Your task to perform on an android device: Open the stopwatch Image 0: 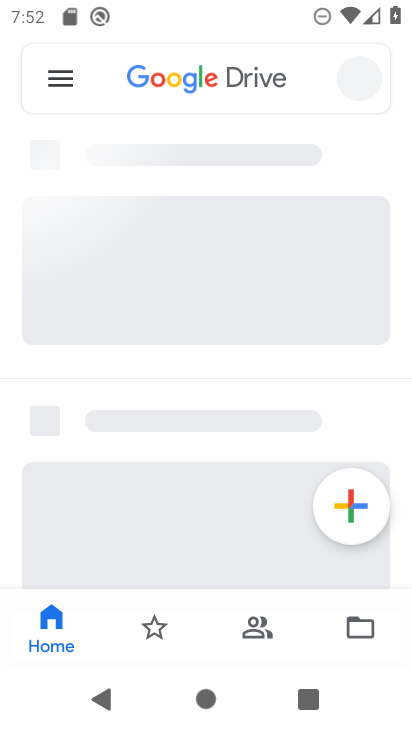
Step 0: drag from (243, 585) to (313, 81)
Your task to perform on an android device: Open the stopwatch Image 1: 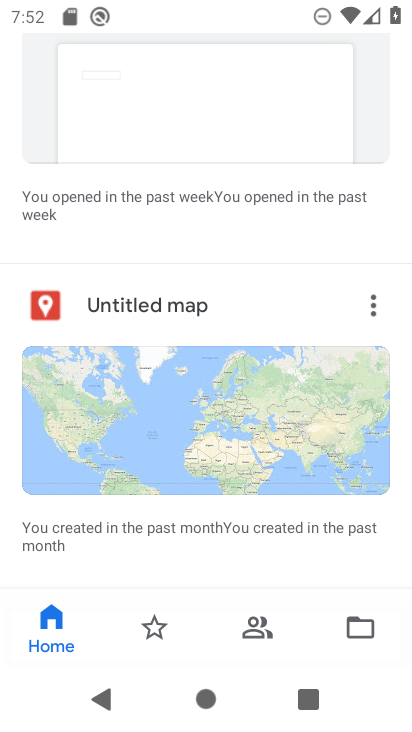
Step 1: press home button
Your task to perform on an android device: Open the stopwatch Image 2: 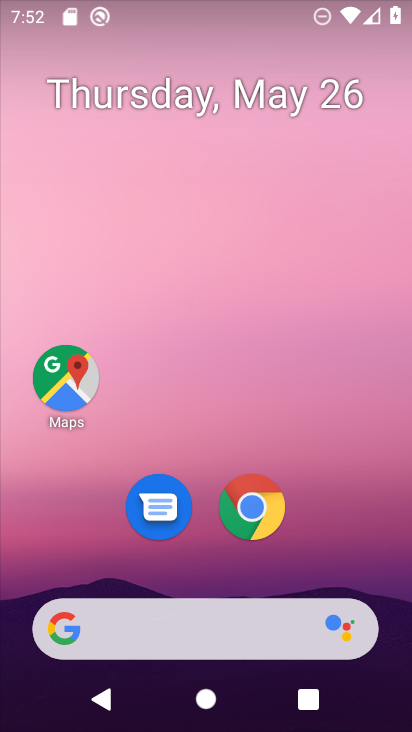
Step 2: drag from (198, 567) to (232, 74)
Your task to perform on an android device: Open the stopwatch Image 3: 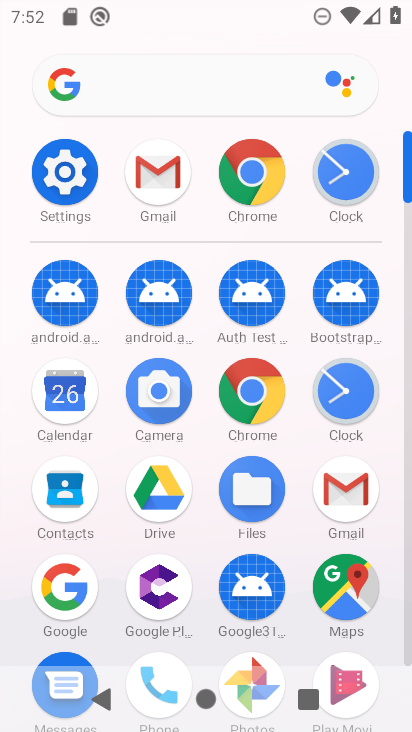
Step 3: click (149, 219)
Your task to perform on an android device: Open the stopwatch Image 4: 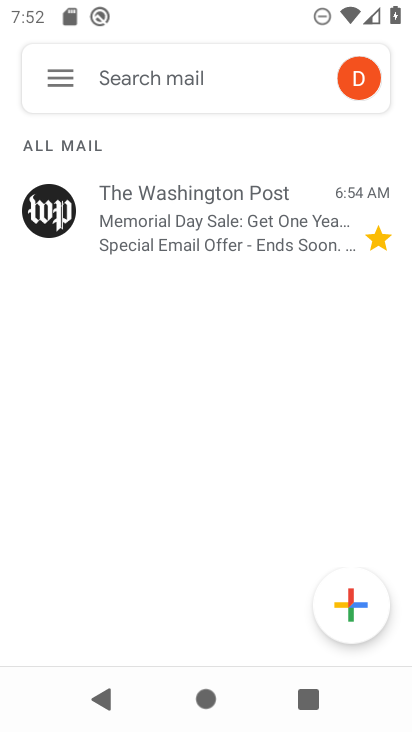
Step 4: click (64, 80)
Your task to perform on an android device: Open the stopwatch Image 5: 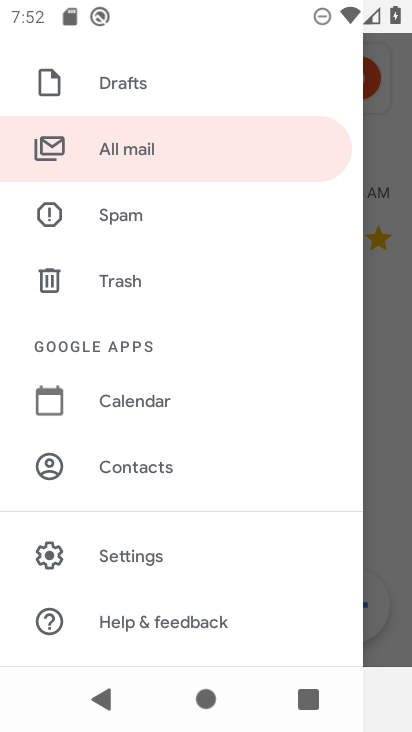
Step 5: press home button
Your task to perform on an android device: Open the stopwatch Image 6: 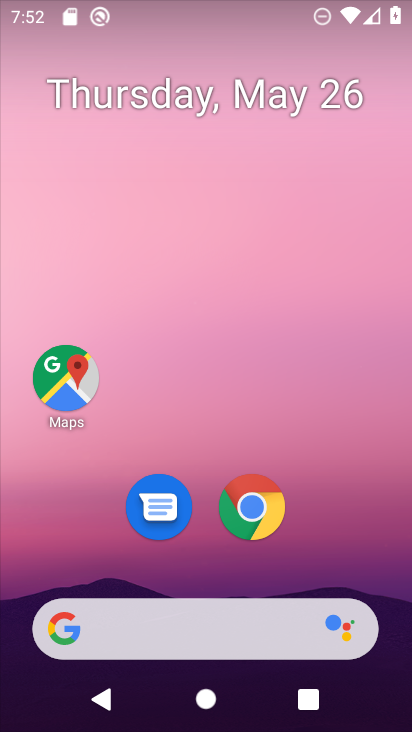
Step 6: drag from (201, 560) to (308, 3)
Your task to perform on an android device: Open the stopwatch Image 7: 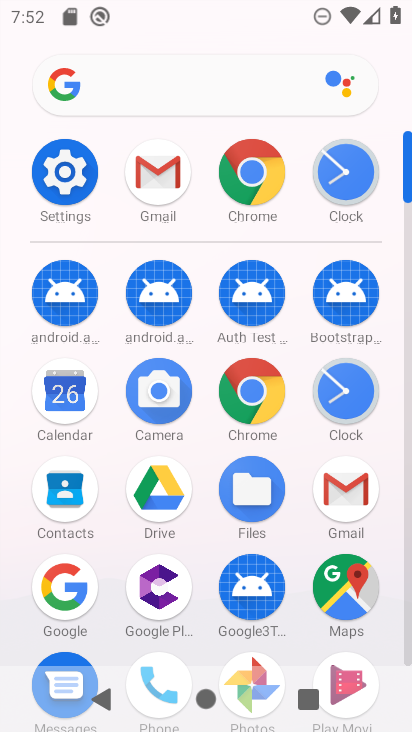
Step 7: click (350, 168)
Your task to perform on an android device: Open the stopwatch Image 8: 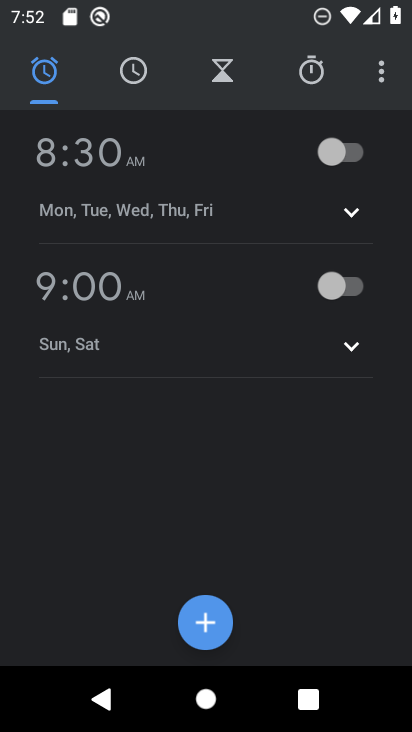
Step 8: click (293, 70)
Your task to perform on an android device: Open the stopwatch Image 9: 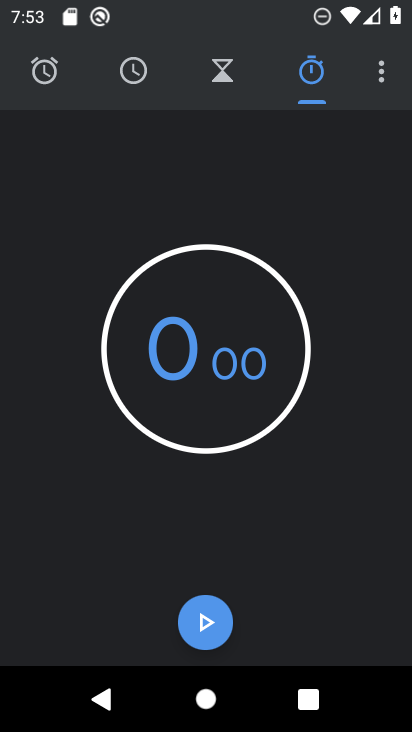
Step 9: task complete